Your task to perform on an android device: Is it going to rain tomorrow? Image 0: 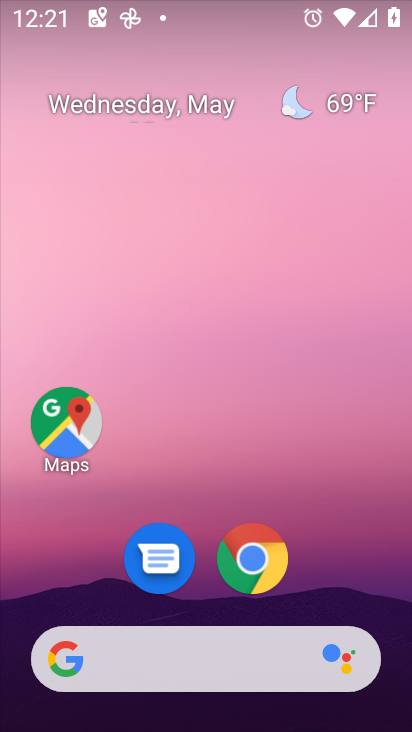
Step 0: drag from (381, 637) to (244, 29)
Your task to perform on an android device: Is it going to rain tomorrow? Image 1: 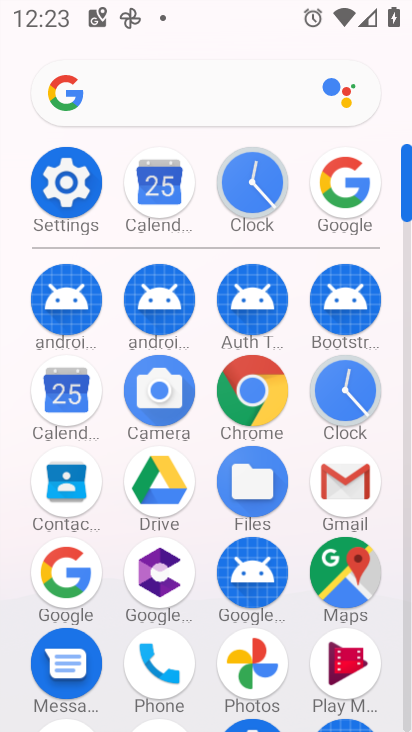
Step 1: click (53, 571)
Your task to perform on an android device: Is it going to rain tomorrow? Image 2: 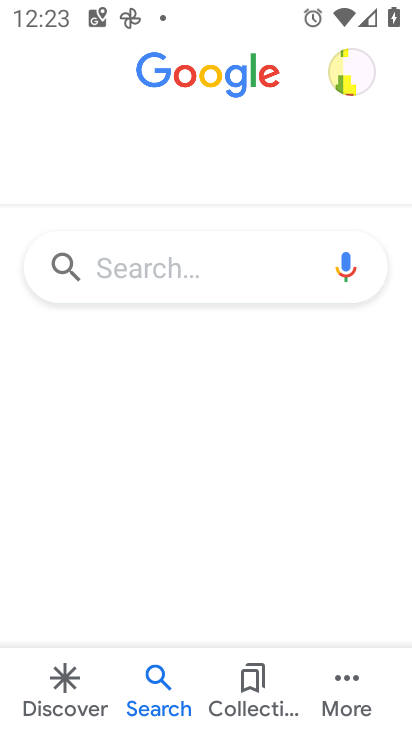
Step 2: click (179, 281)
Your task to perform on an android device: Is it going to rain tomorrow? Image 3: 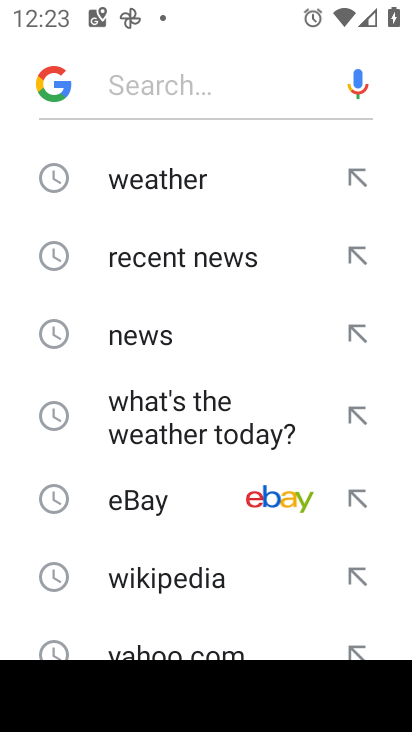
Step 3: drag from (171, 610) to (237, 166)
Your task to perform on an android device: Is it going to rain tomorrow? Image 4: 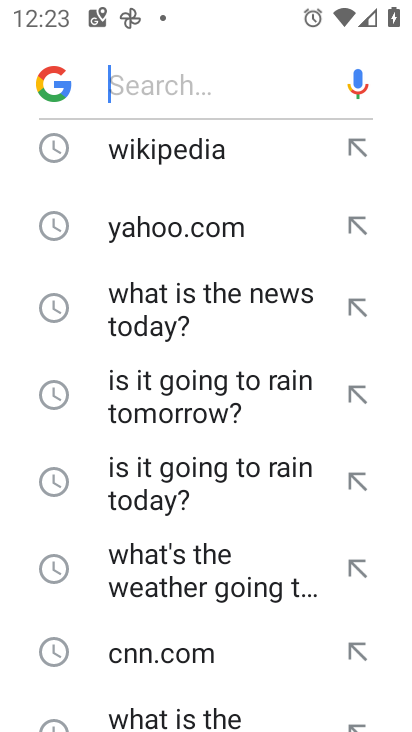
Step 4: click (189, 412)
Your task to perform on an android device: Is it going to rain tomorrow? Image 5: 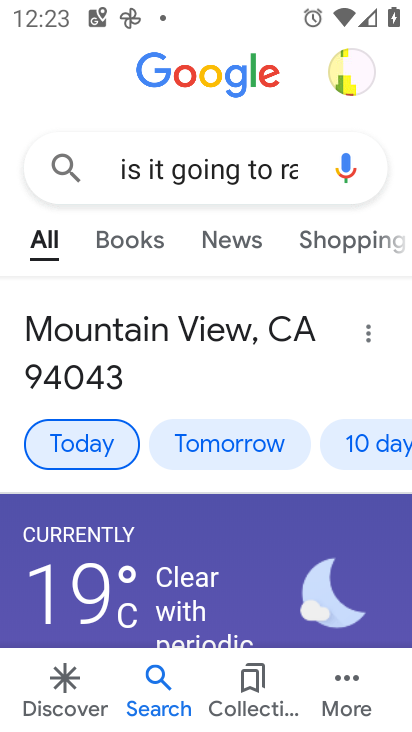
Step 5: task complete